Your task to perform on an android device: Open settings Image 0: 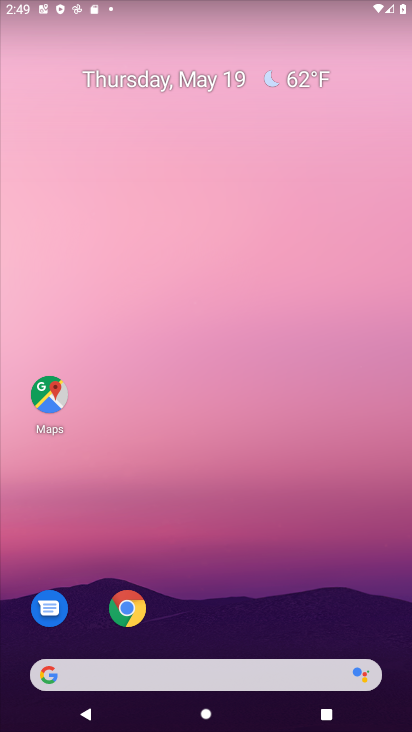
Step 0: drag from (253, 603) to (203, 185)
Your task to perform on an android device: Open settings Image 1: 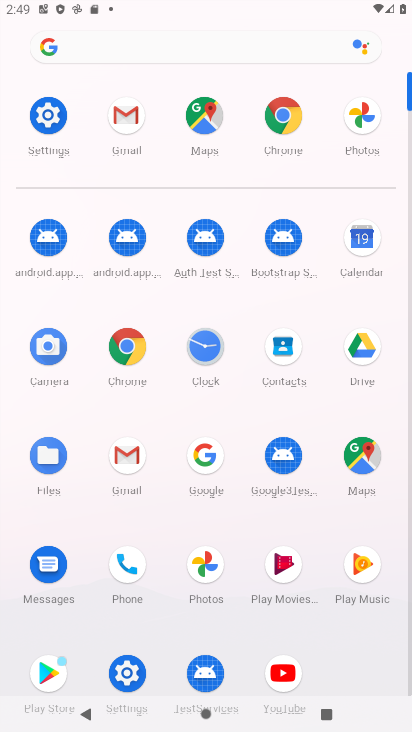
Step 1: click (60, 131)
Your task to perform on an android device: Open settings Image 2: 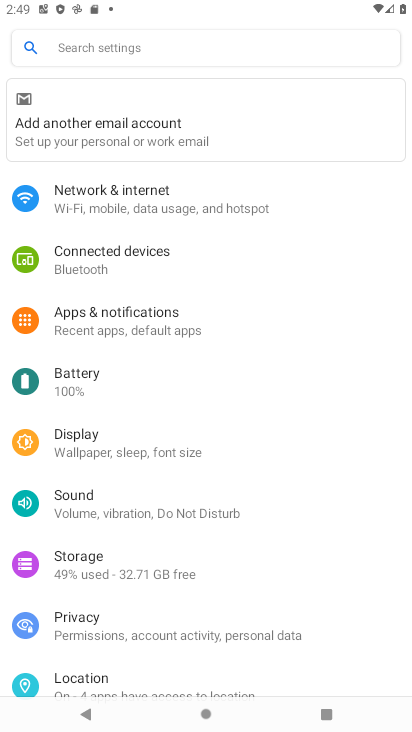
Step 2: task complete